Your task to perform on an android device: Go to wifi settings Image 0: 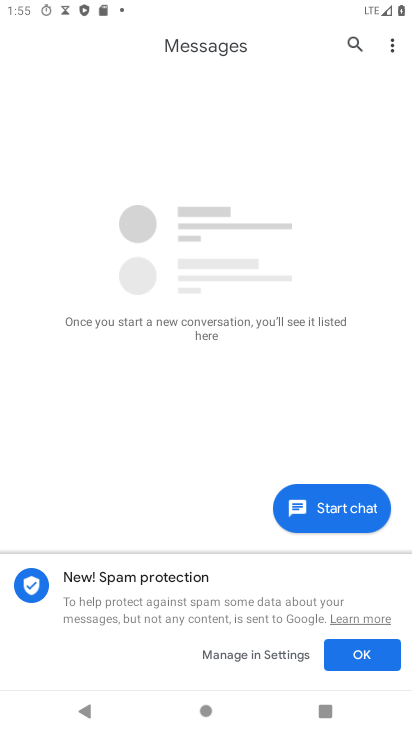
Step 0: press home button
Your task to perform on an android device: Go to wifi settings Image 1: 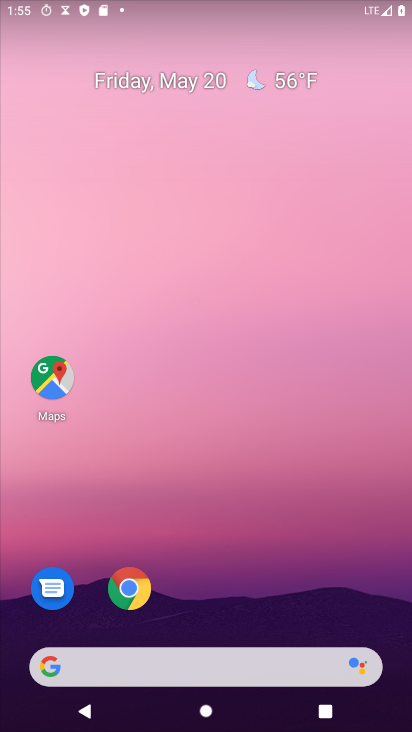
Step 1: drag from (175, 4) to (118, 485)
Your task to perform on an android device: Go to wifi settings Image 2: 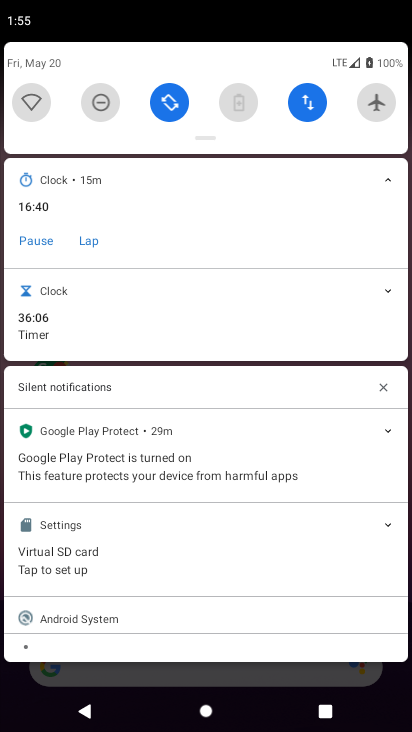
Step 2: click (118, 486)
Your task to perform on an android device: Go to wifi settings Image 3: 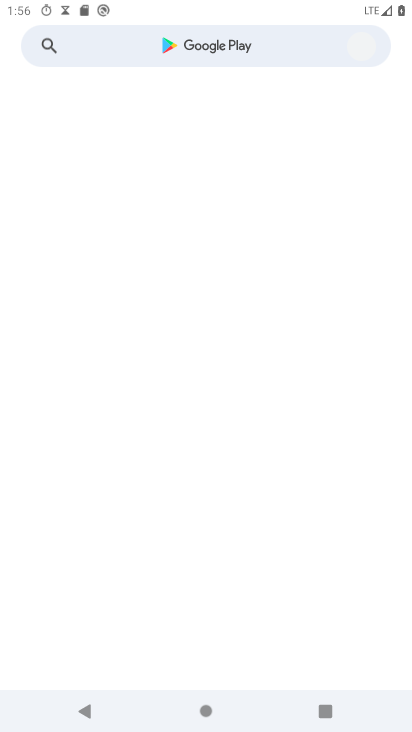
Step 3: click (118, 487)
Your task to perform on an android device: Go to wifi settings Image 4: 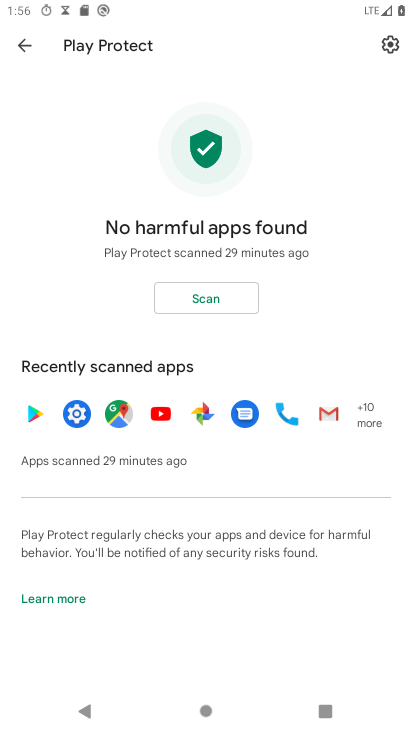
Step 4: press home button
Your task to perform on an android device: Go to wifi settings Image 5: 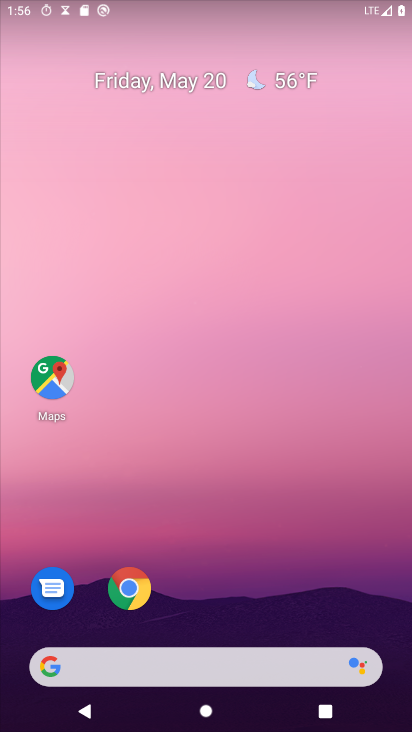
Step 5: drag from (142, 144) to (149, 381)
Your task to perform on an android device: Go to wifi settings Image 6: 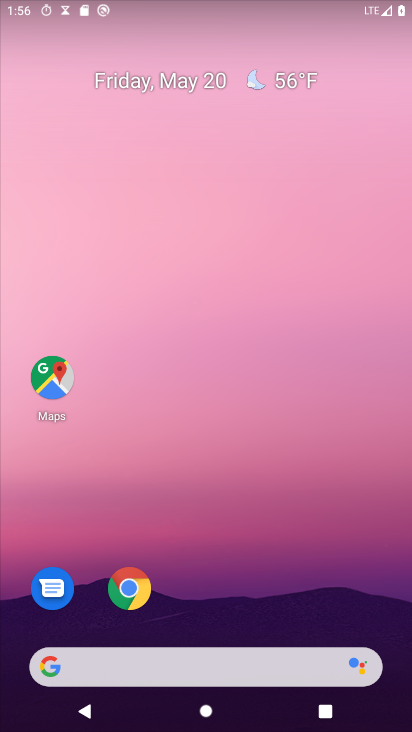
Step 6: drag from (114, 58) to (132, 347)
Your task to perform on an android device: Go to wifi settings Image 7: 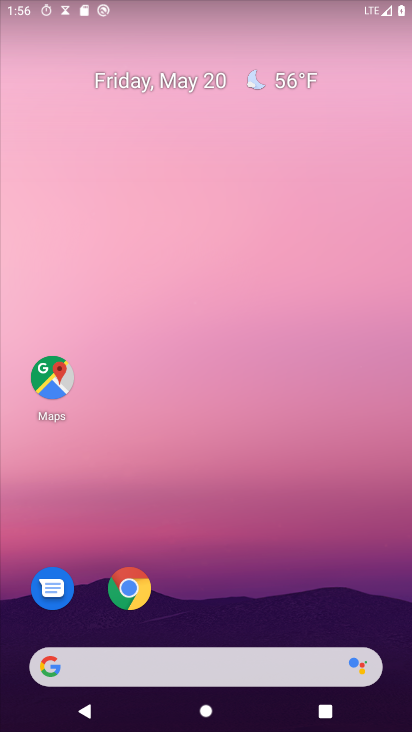
Step 7: drag from (164, 5) to (167, 359)
Your task to perform on an android device: Go to wifi settings Image 8: 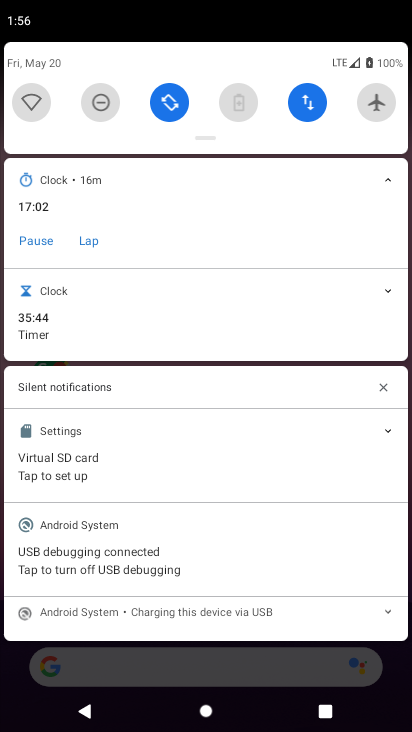
Step 8: click (33, 103)
Your task to perform on an android device: Go to wifi settings Image 9: 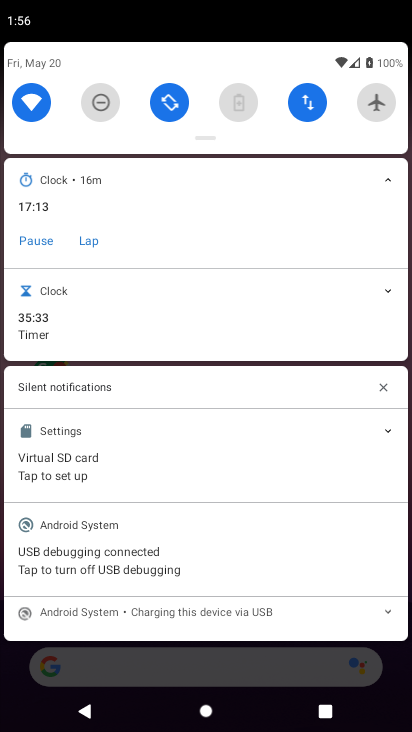
Step 9: click (37, 110)
Your task to perform on an android device: Go to wifi settings Image 10: 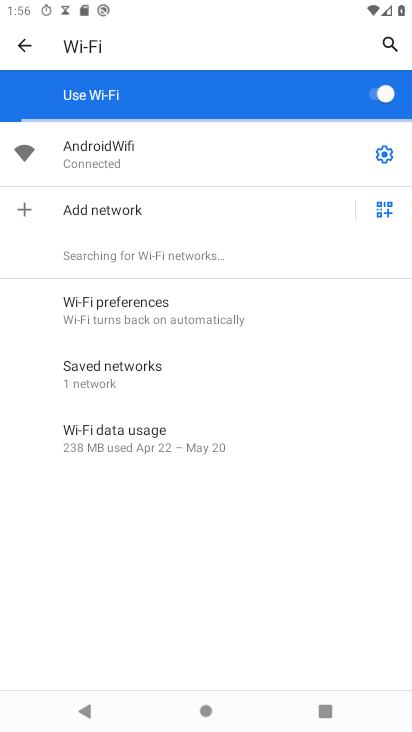
Step 10: click (380, 154)
Your task to perform on an android device: Go to wifi settings Image 11: 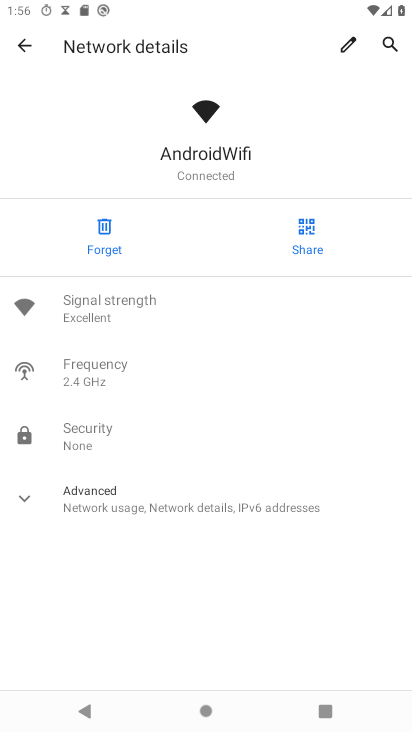
Step 11: task complete